Your task to perform on an android device: Clear the cart on ebay.com. Search for "bose soundlink mini" on ebay.com, select the first entry, add it to the cart, then select checkout. Image 0: 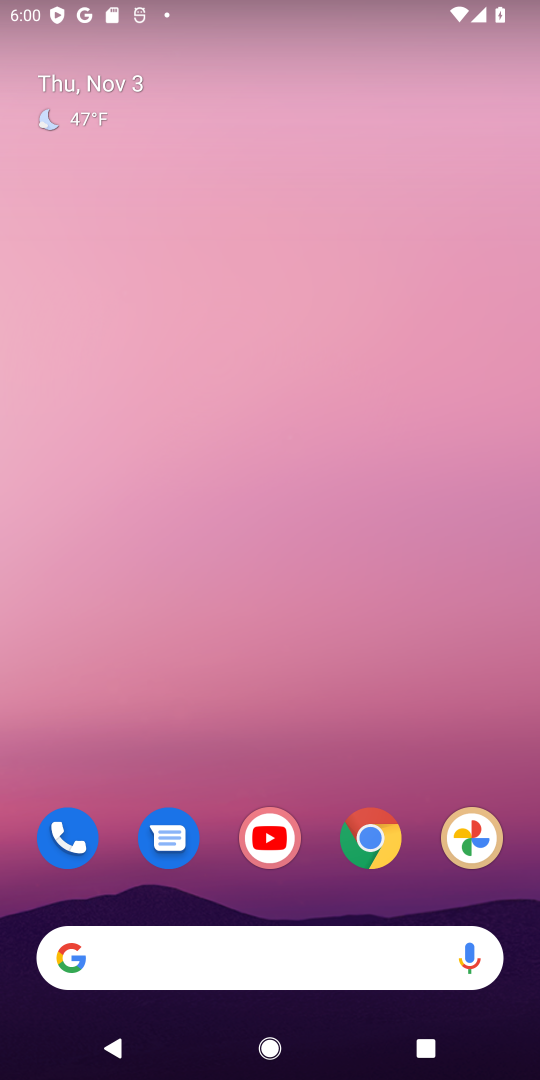
Step 0: click (261, 958)
Your task to perform on an android device: Clear the cart on ebay.com. Search for "bose soundlink mini" on ebay.com, select the first entry, add it to the cart, then select checkout. Image 1: 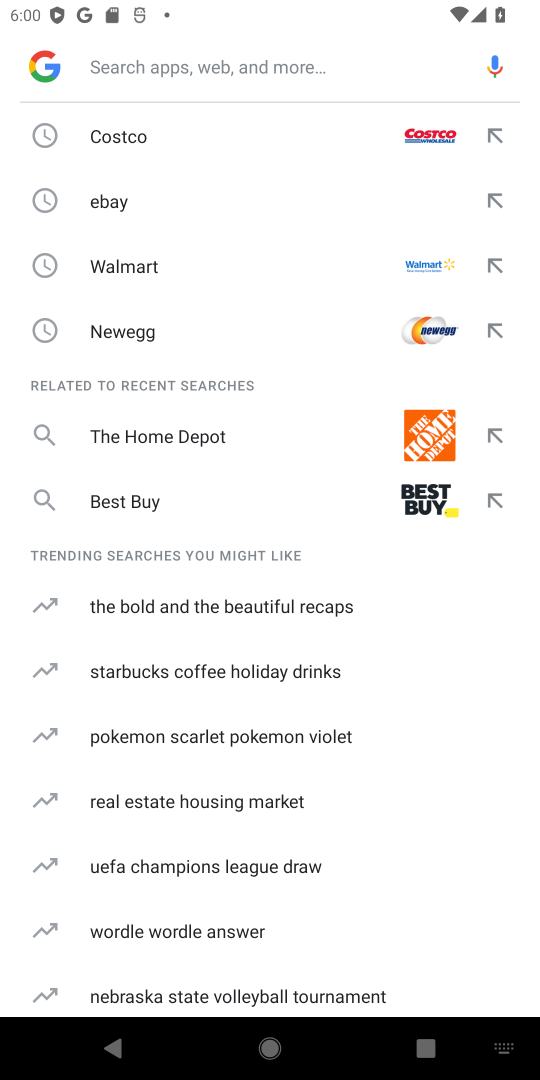
Step 1: click (137, 199)
Your task to perform on an android device: Clear the cart on ebay.com. Search for "bose soundlink mini" on ebay.com, select the first entry, add it to the cart, then select checkout. Image 2: 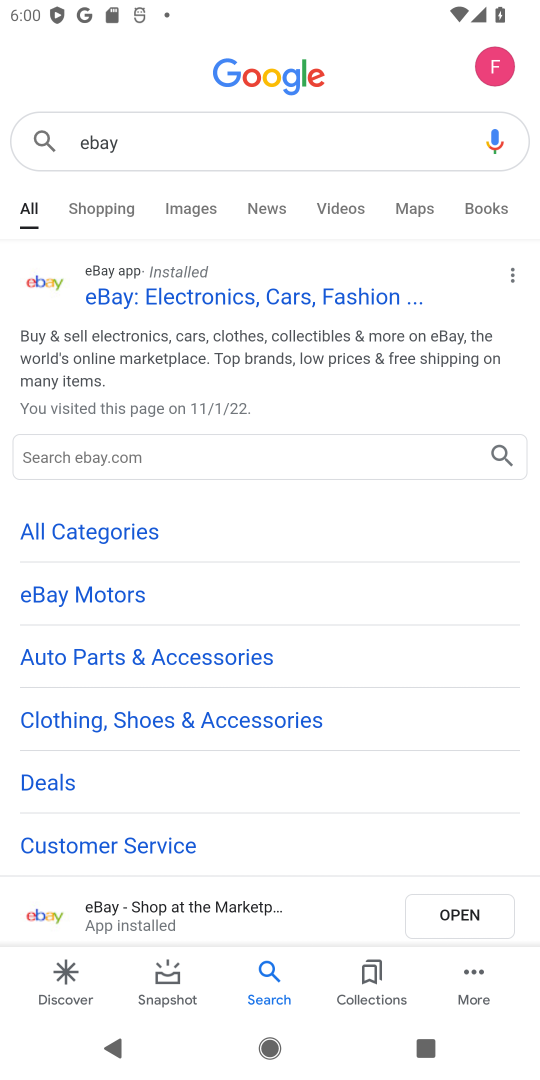
Step 2: click (137, 271)
Your task to perform on an android device: Clear the cart on ebay.com. Search for "bose soundlink mini" on ebay.com, select the first entry, add it to the cart, then select checkout. Image 3: 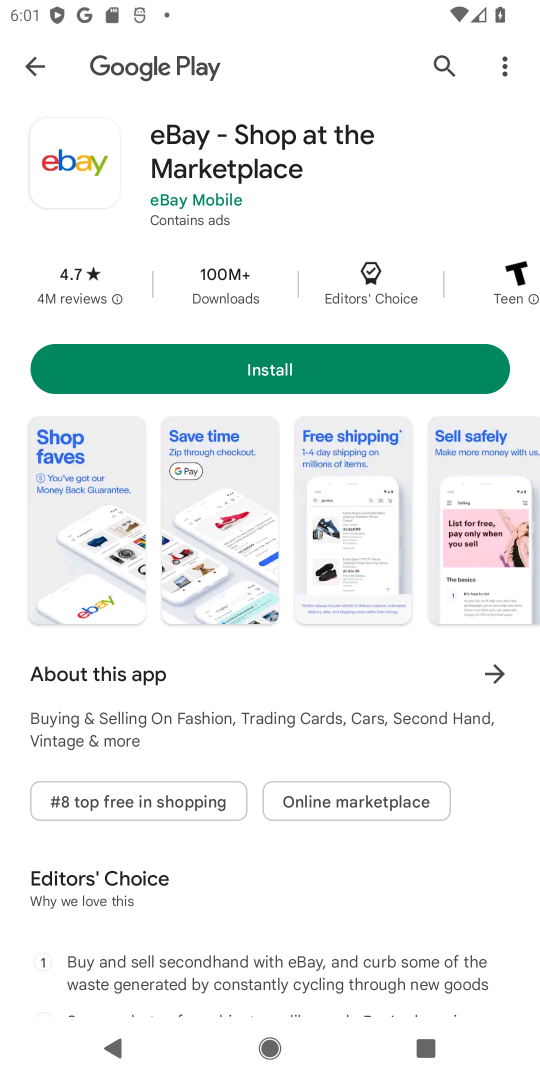
Step 3: press back button
Your task to perform on an android device: Clear the cart on ebay.com. Search for "bose soundlink mini" on ebay.com, select the first entry, add it to the cart, then select checkout. Image 4: 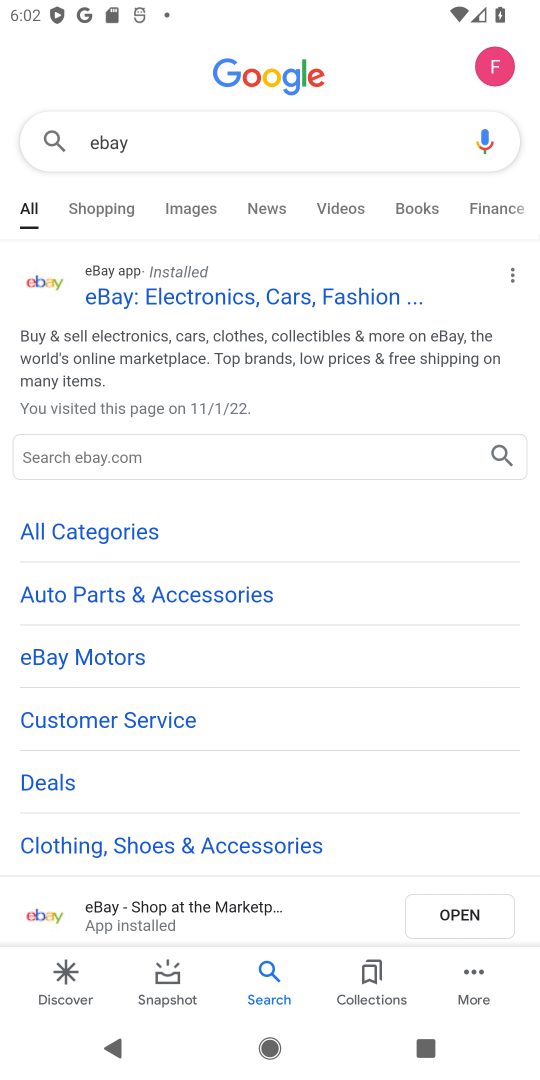
Step 4: drag from (181, 495) to (237, 8)
Your task to perform on an android device: Clear the cart on ebay.com. Search for "bose soundlink mini" on ebay.com, select the first entry, add it to the cart, then select checkout. Image 5: 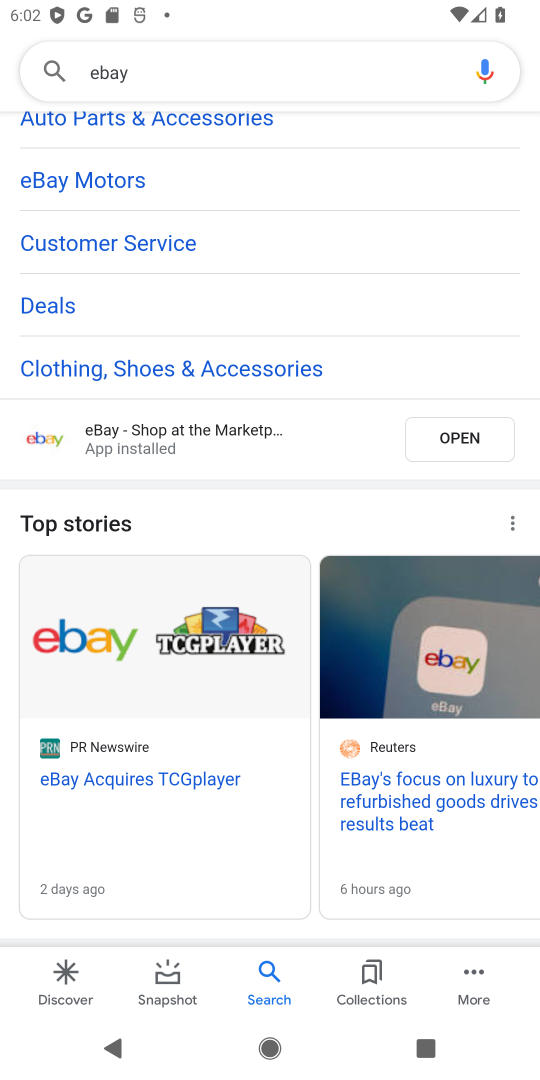
Step 5: drag from (310, 427) to (78, 1031)
Your task to perform on an android device: Clear the cart on ebay.com. Search for "bose soundlink mini" on ebay.com, select the first entry, add it to the cart, then select checkout. Image 6: 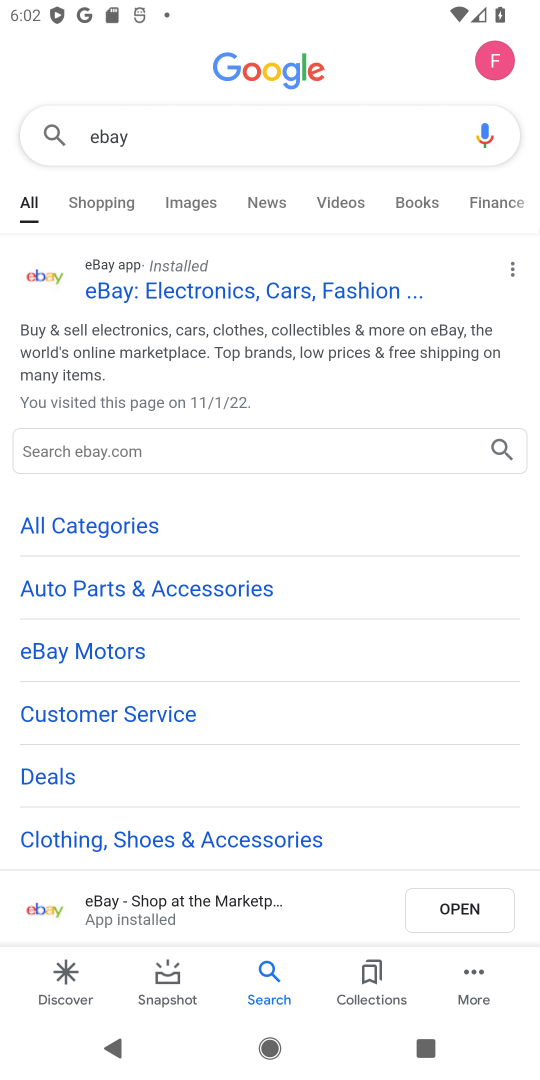
Step 6: click (134, 135)
Your task to perform on an android device: Clear the cart on ebay.com. Search for "bose soundlink mini" on ebay.com, select the first entry, add it to the cart, then select checkout. Image 7: 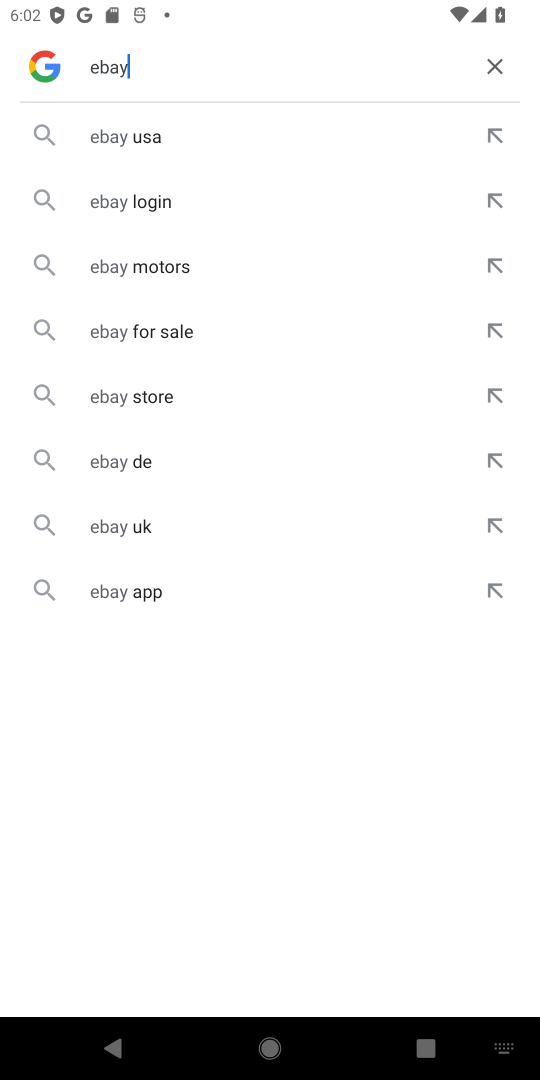
Step 7: click (142, 141)
Your task to perform on an android device: Clear the cart on ebay.com. Search for "bose soundlink mini" on ebay.com, select the first entry, add it to the cart, then select checkout. Image 8: 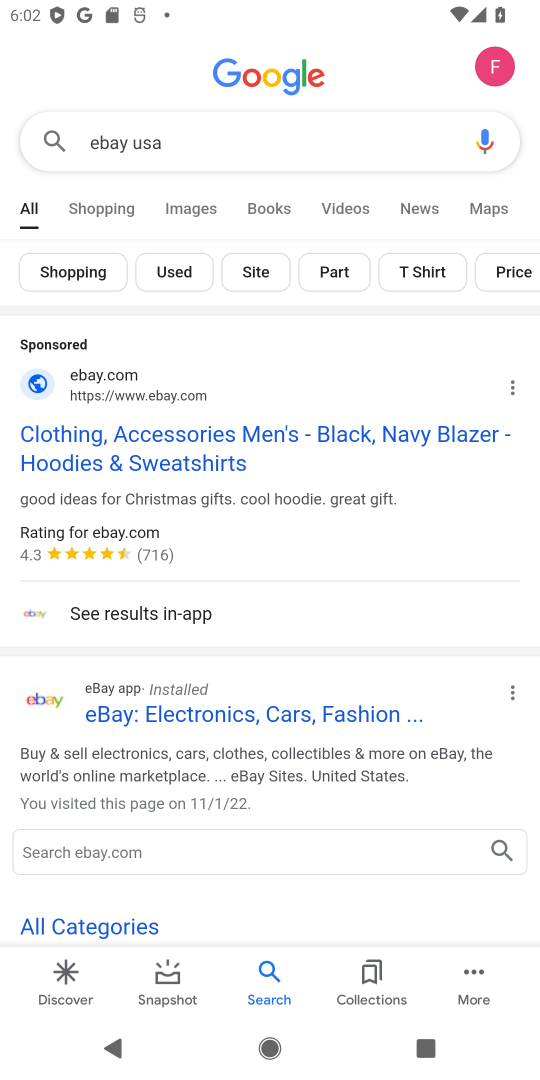
Step 8: click (122, 723)
Your task to perform on an android device: Clear the cart on ebay.com. Search for "bose soundlink mini" on ebay.com, select the first entry, add it to the cart, then select checkout. Image 9: 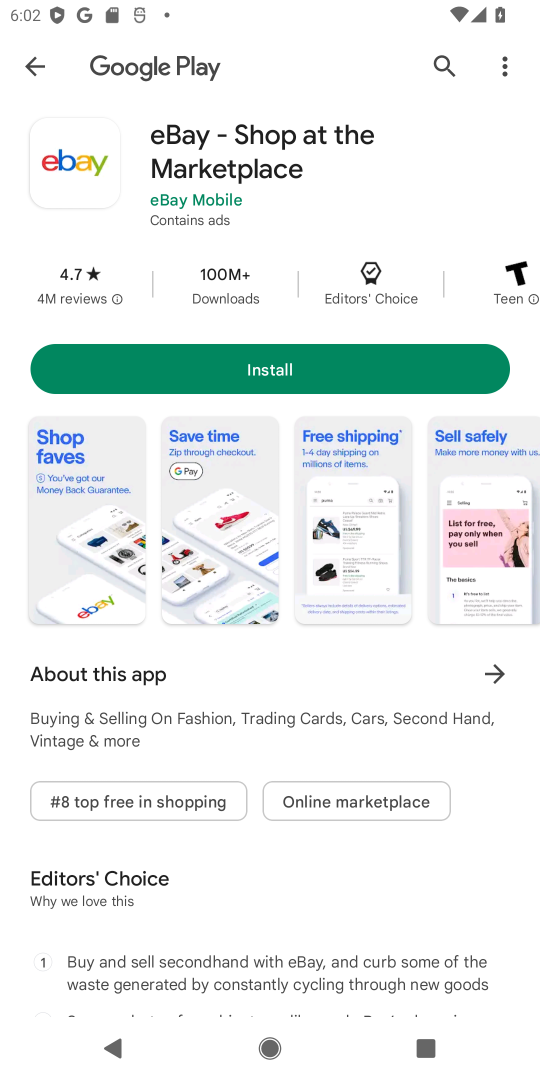
Step 9: press back button
Your task to perform on an android device: Clear the cart on ebay.com. Search for "bose soundlink mini" on ebay.com, select the first entry, add it to the cart, then select checkout. Image 10: 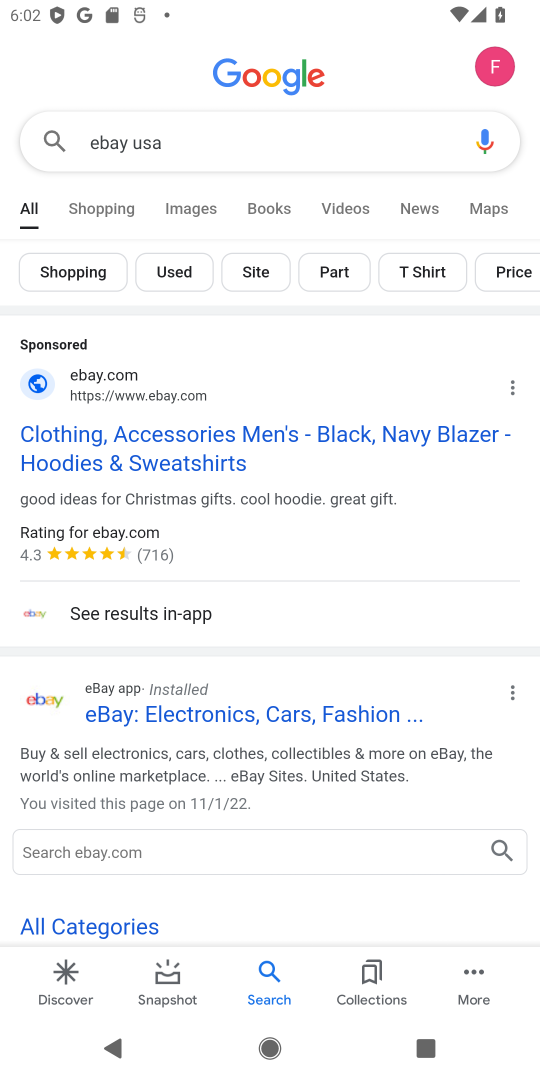
Step 10: click (53, 263)
Your task to perform on an android device: Clear the cart on ebay.com. Search for "bose soundlink mini" on ebay.com, select the first entry, add it to the cart, then select checkout. Image 11: 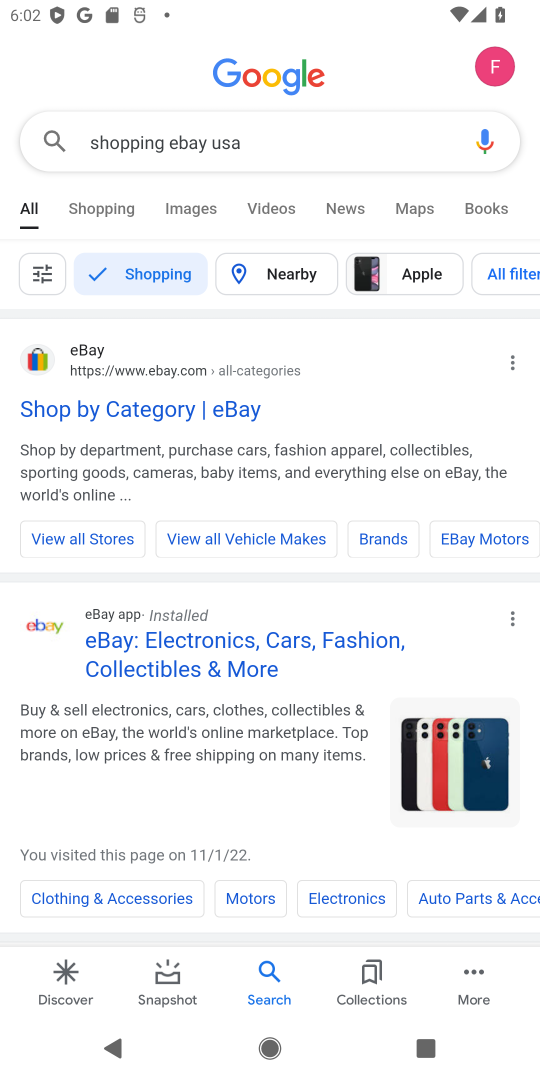
Step 11: click (180, 407)
Your task to perform on an android device: Clear the cart on ebay.com. Search for "bose soundlink mini" on ebay.com, select the first entry, add it to the cart, then select checkout. Image 12: 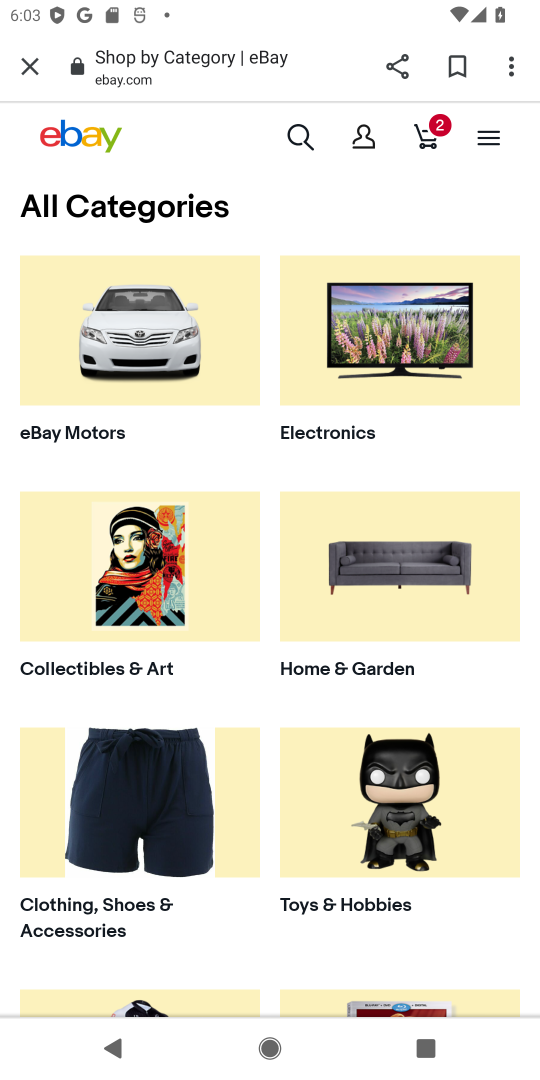
Step 12: click (434, 130)
Your task to perform on an android device: Clear the cart on ebay.com. Search for "bose soundlink mini" on ebay.com, select the first entry, add it to the cart, then select checkout. Image 13: 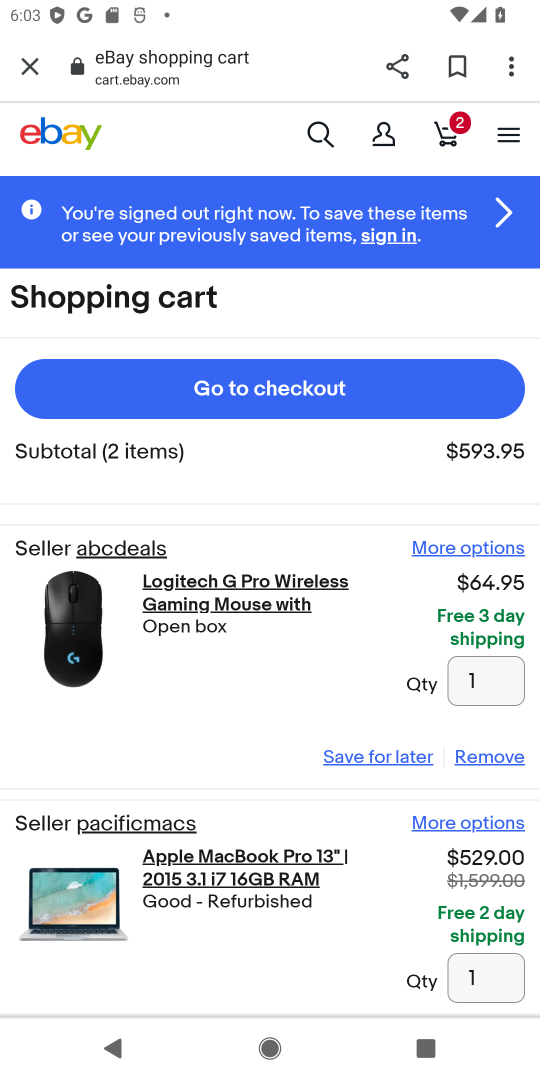
Step 13: click (494, 756)
Your task to perform on an android device: Clear the cart on ebay.com. Search for "bose soundlink mini" on ebay.com, select the first entry, add it to the cart, then select checkout. Image 14: 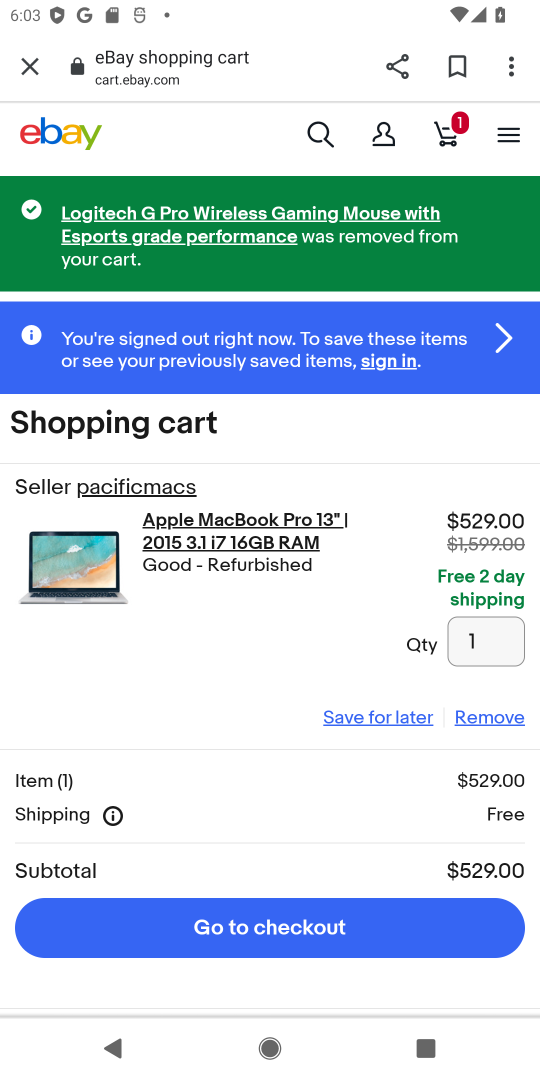
Step 14: click (474, 709)
Your task to perform on an android device: Clear the cart on ebay.com. Search for "bose soundlink mini" on ebay.com, select the first entry, add it to the cart, then select checkout. Image 15: 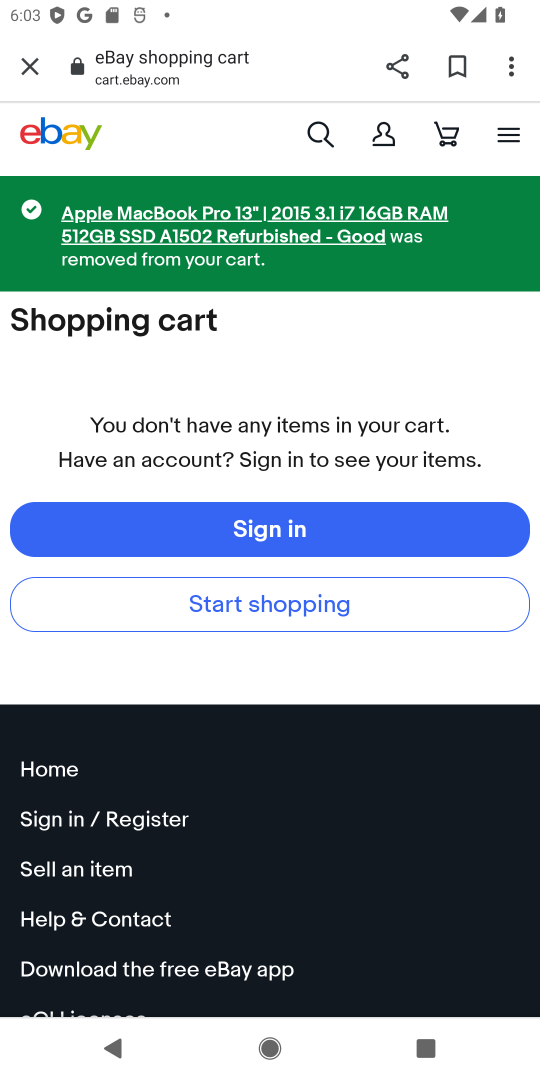
Step 15: click (316, 126)
Your task to perform on an android device: Clear the cart on ebay.com. Search for "bose soundlink mini" on ebay.com, select the first entry, add it to the cart, then select checkout. Image 16: 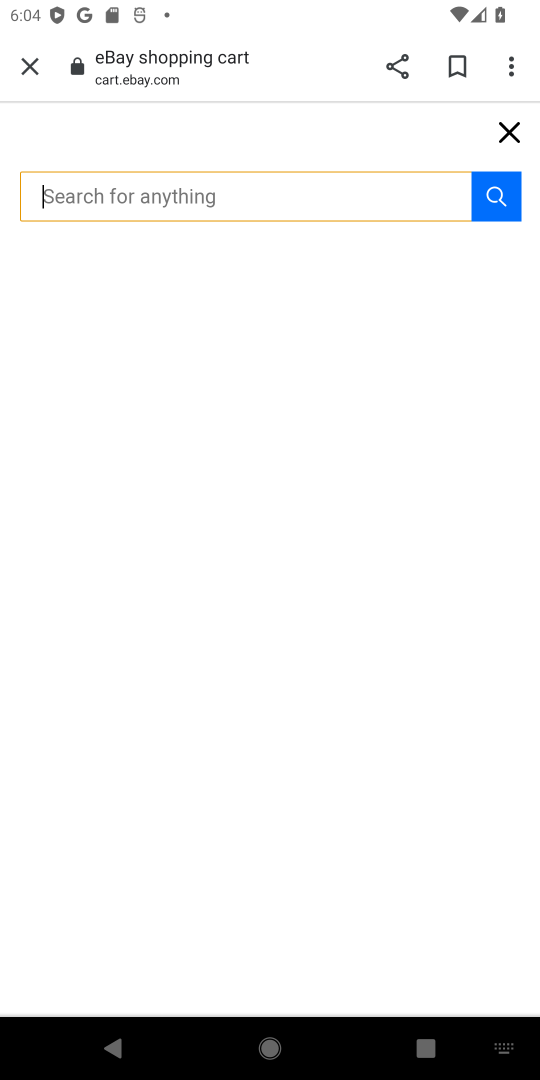
Step 16: type "ebay.com"
Your task to perform on an android device: Clear the cart on ebay.com. Search for "bose soundlink mini" on ebay.com, select the first entry, add it to the cart, then select checkout. Image 17: 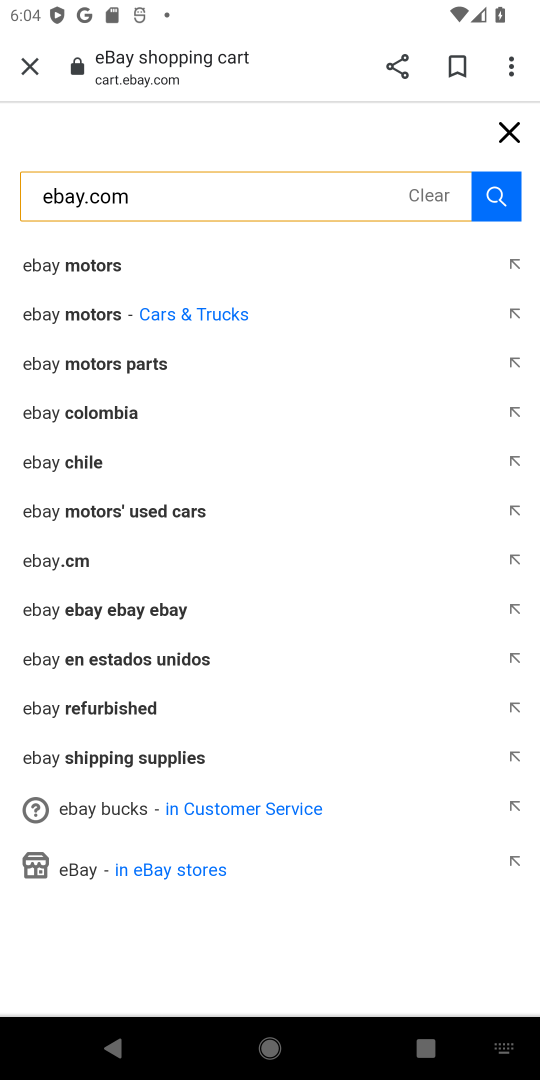
Step 17: click (425, 195)
Your task to perform on an android device: Clear the cart on ebay.com. Search for "bose soundlink mini" on ebay.com, select the first entry, add it to the cart, then select checkout. Image 18: 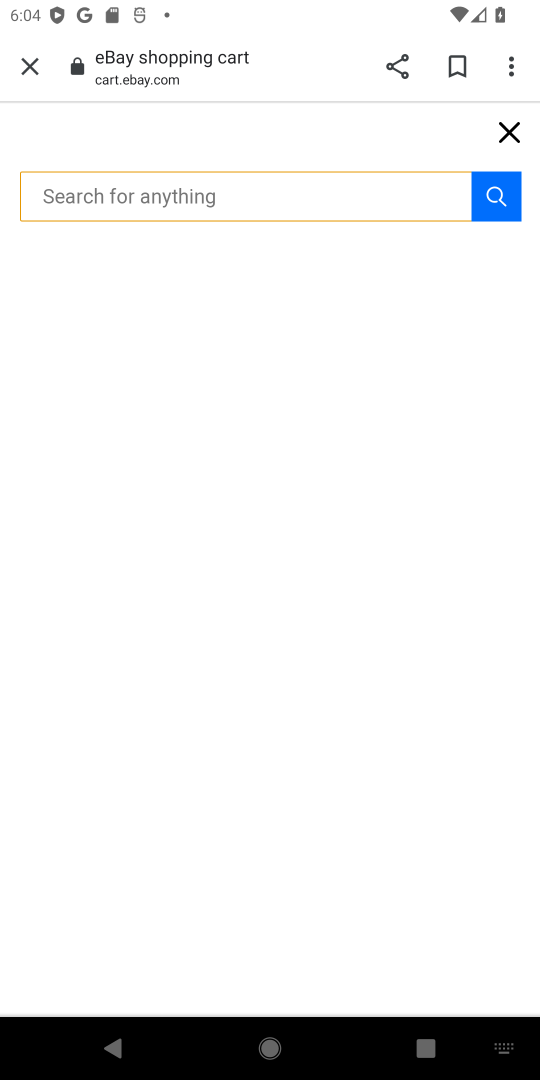
Step 18: type "bose soundlink mini"
Your task to perform on an android device: Clear the cart on ebay.com. Search for "bose soundlink mini" on ebay.com, select the first entry, add it to the cart, then select checkout. Image 19: 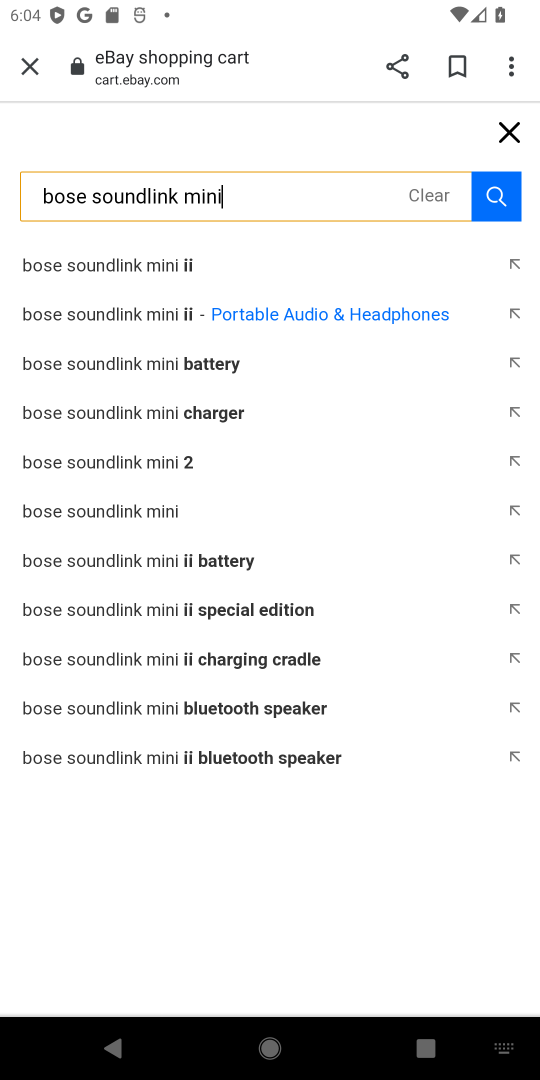
Step 19: click (136, 522)
Your task to perform on an android device: Clear the cart on ebay.com. Search for "bose soundlink mini" on ebay.com, select the first entry, add it to the cart, then select checkout. Image 20: 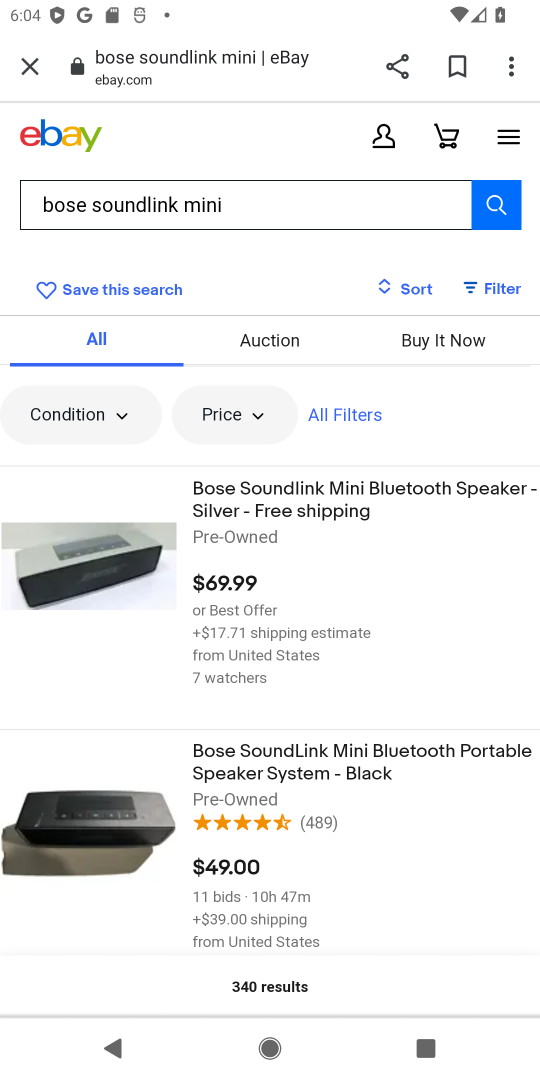
Step 20: click (224, 561)
Your task to perform on an android device: Clear the cart on ebay.com. Search for "bose soundlink mini" on ebay.com, select the first entry, add it to the cart, then select checkout. Image 21: 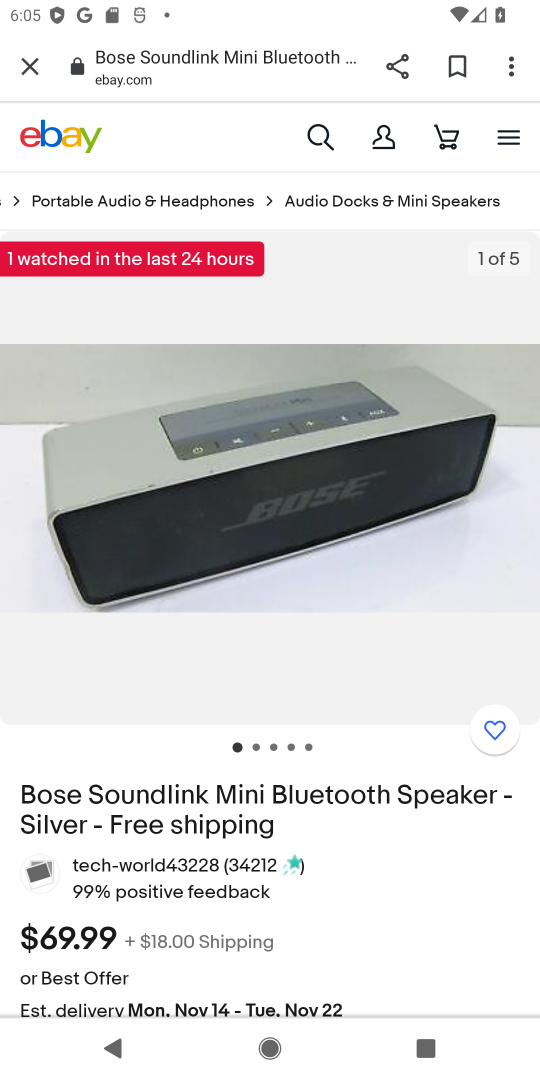
Step 21: drag from (258, 805) to (363, 275)
Your task to perform on an android device: Clear the cart on ebay.com. Search for "bose soundlink mini" on ebay.com, select the first entry, add it to the cart, then select checkout. Image 22: 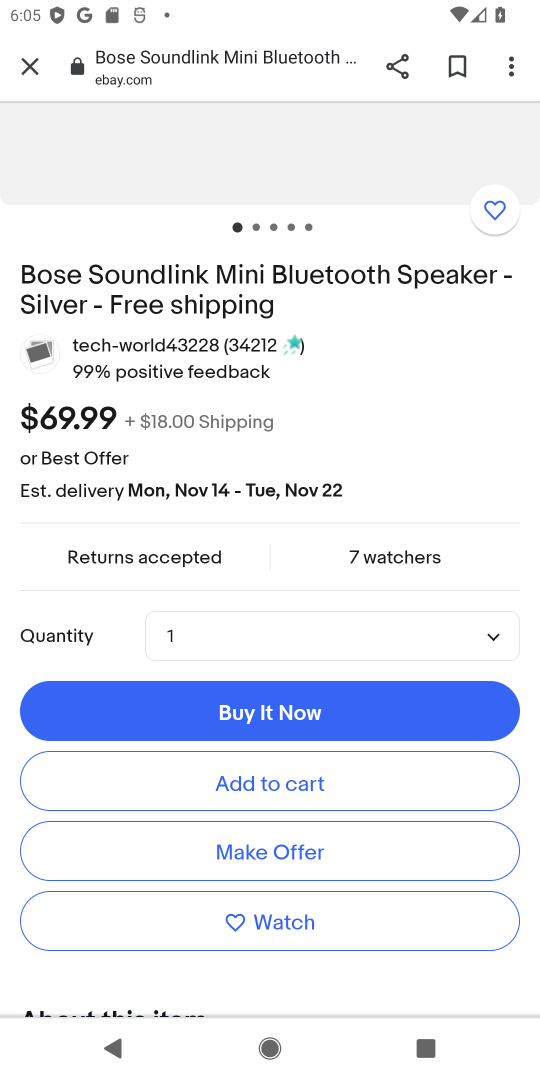
Step 22: click (299, 766)
Your task to perform on an android device: Clear the cart on ebay.com. Search for "bose soundlink mini" on ebay.com, select the first entry, add it to the cart, then select checkout. Image 23: 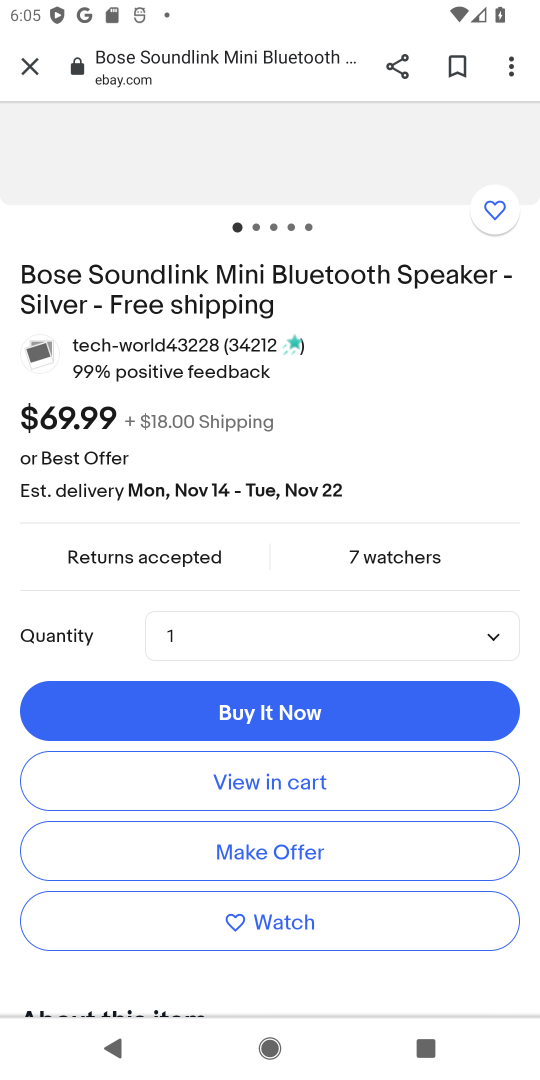
Step 23: click (258, 776)
Your task to perform on an android device: Clear the cart on ebay.com. Search for "bose soundlink mini" on ebay.com, select the first entry, add it to the cart, then select checkout. Image 24: 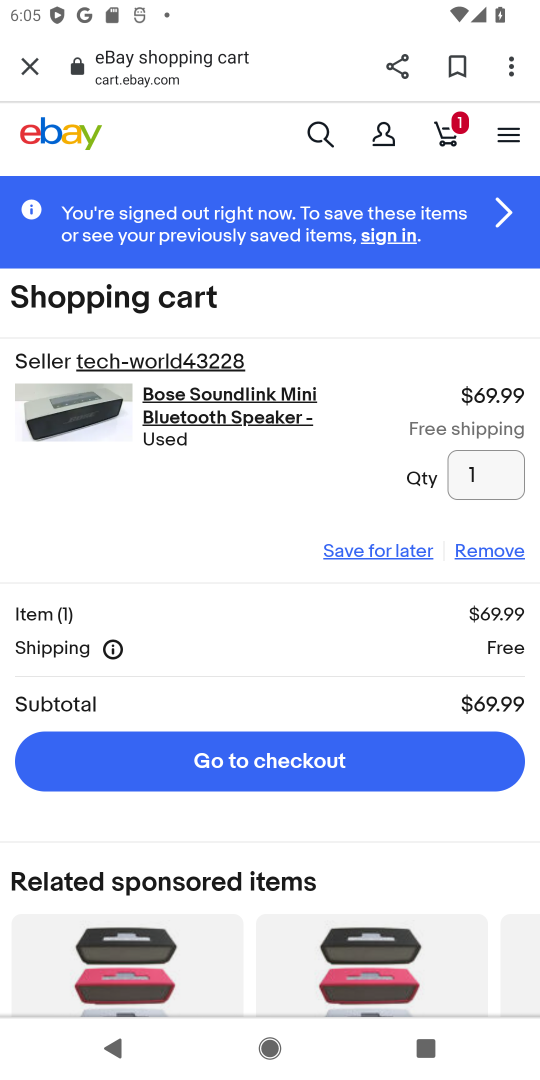
Step 24: click (282, 776)
Your task to perform on an android device: Clear the cart on ebay.com. Search for "bose soundlink mini" on ebay.com, select the first entry, add it to the cart, then select checkout. Image 25: 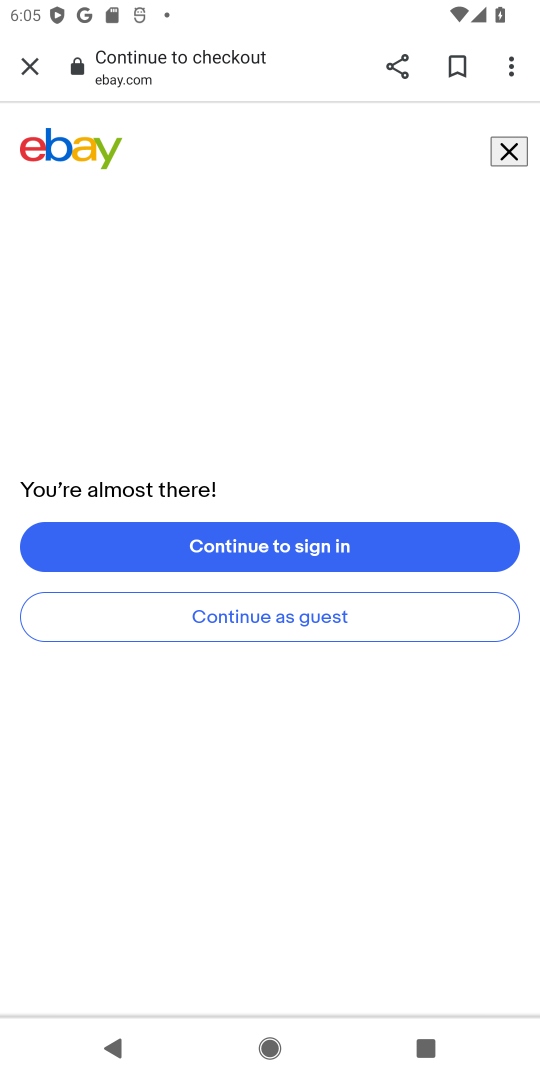
Step 25: task complete